Your task to perform on an android device: Search for Italian restaurants on Maps Image 0: 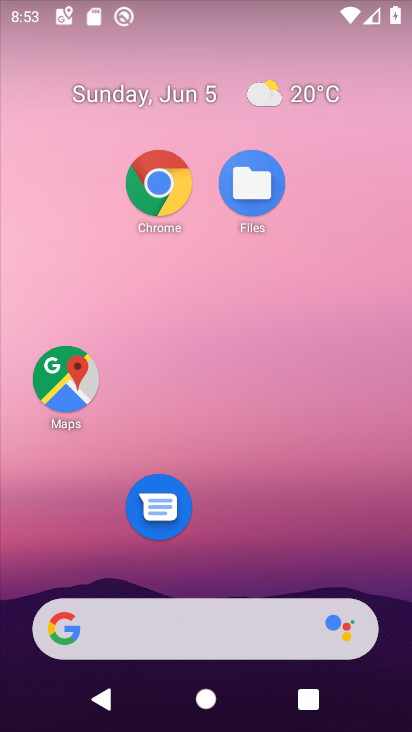
Step 0: click (75, 377)
Your task to perform on an android device: Search for Italian restaurants on Maps Image 1: 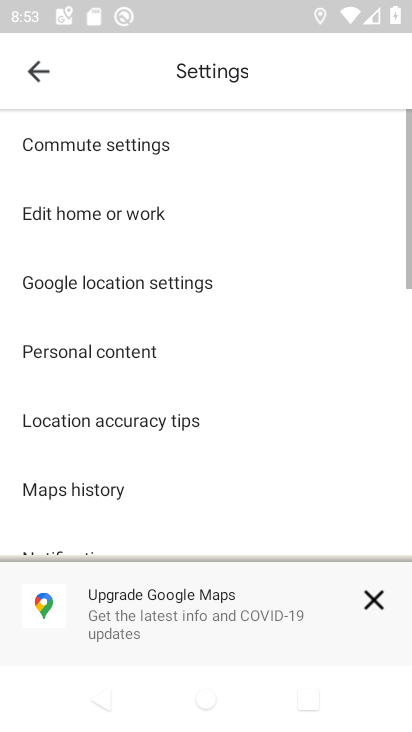
Step 1: click (35, 54)
Your task to perform on an android device: Search for Italian restaurants on Maps Image 2: 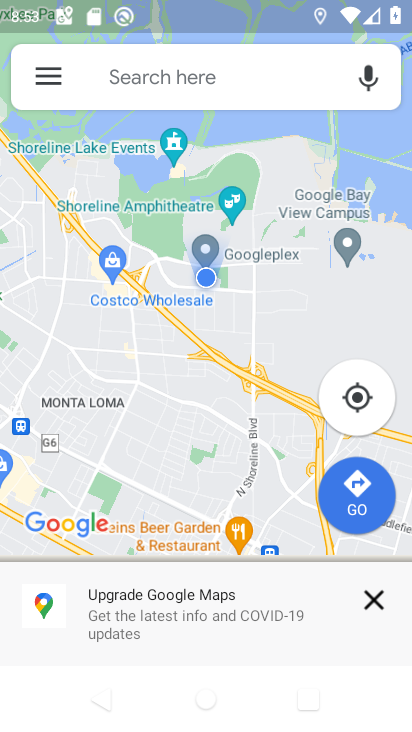
Step 2: click (141, 69)
Your task to perform on an android device: Search for Italian restaurants on Maps Image 3: 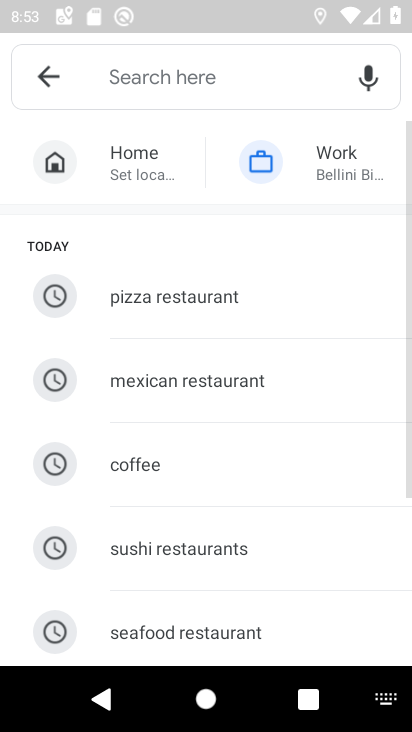
Step 3: drag from (215, 588) to (163, 184)
Your task to perform on an android device: Search for Italian restaurants on Maps Image 4: 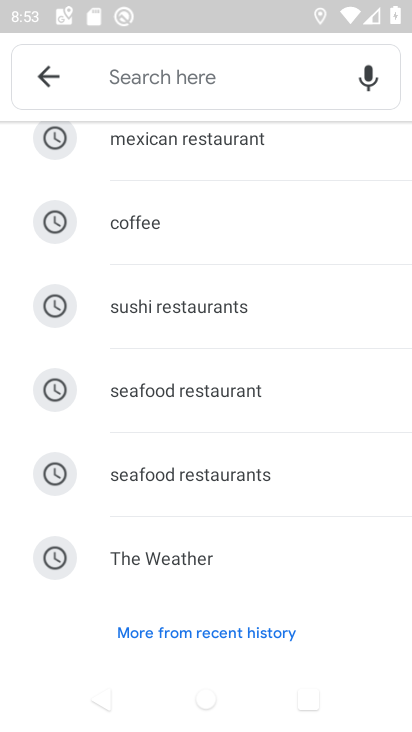
Step 4: click (213, 627)
Your task to perform on an android device: Search for Italian restaurants on Maps Image 5: 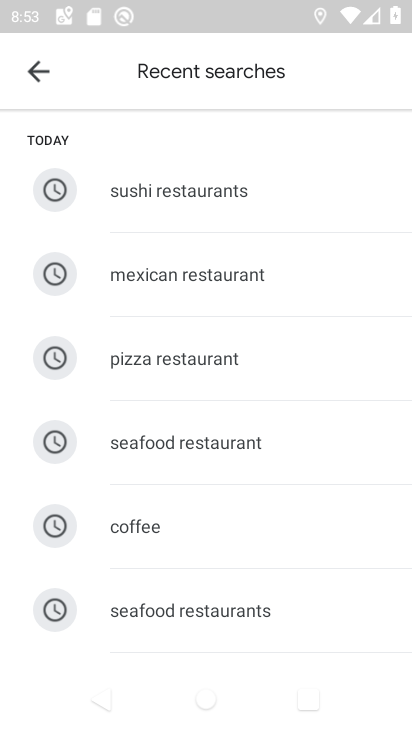
Step 5: drag from (209, 587) to (144, 25)
Your task to perform on an android device: Search for Italian restaurants on Maps Image 6: 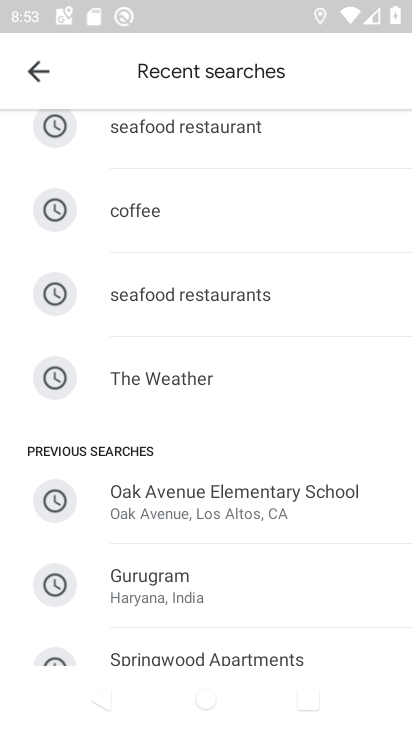
Step 6: click (47, 58)
Your task to perform on an android device: Search for Italian restaurants on Maps Image 7: 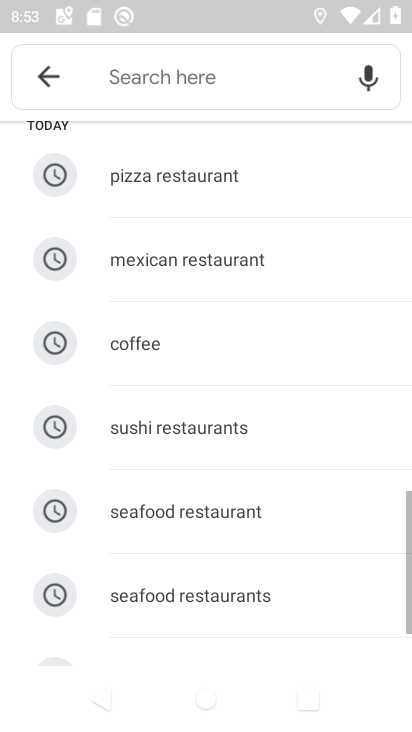
Step 7: click (147, 83)
Your task to perform on an android device: Search for Italian restaurants on Maps Image 8: 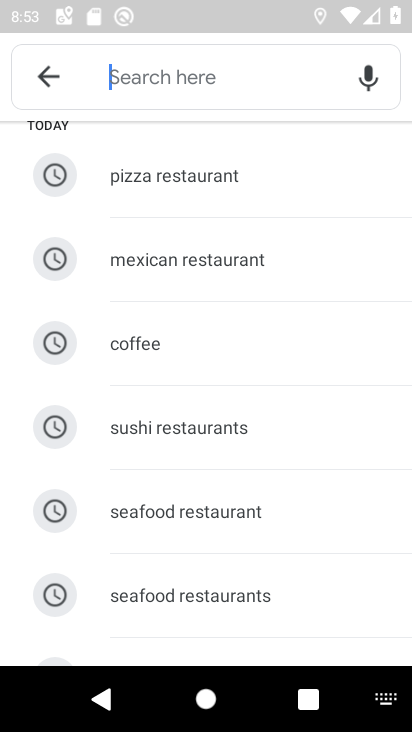
Step 8: type "italian "
Your task to perform on an android device: Search for Italian restaurants on Maps Image 9: 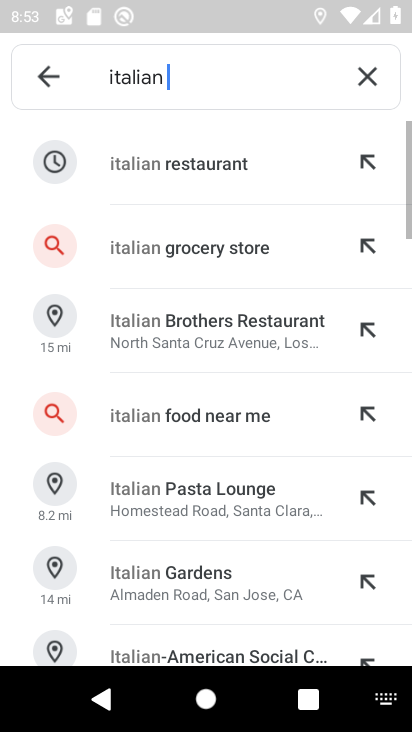
Step 9: click (157, 174)
Your task to perform on an android device: Search for Italian restaurants on Maps Image 10: 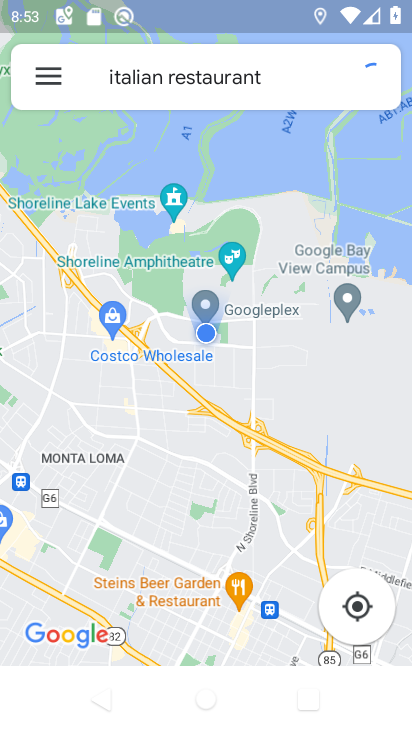
Step 10: task complete